Your task to perform on an android device: Clear the cart on amazon. Search for usb-b on amazon, select the first entry, and add it to the cart. Image 0: 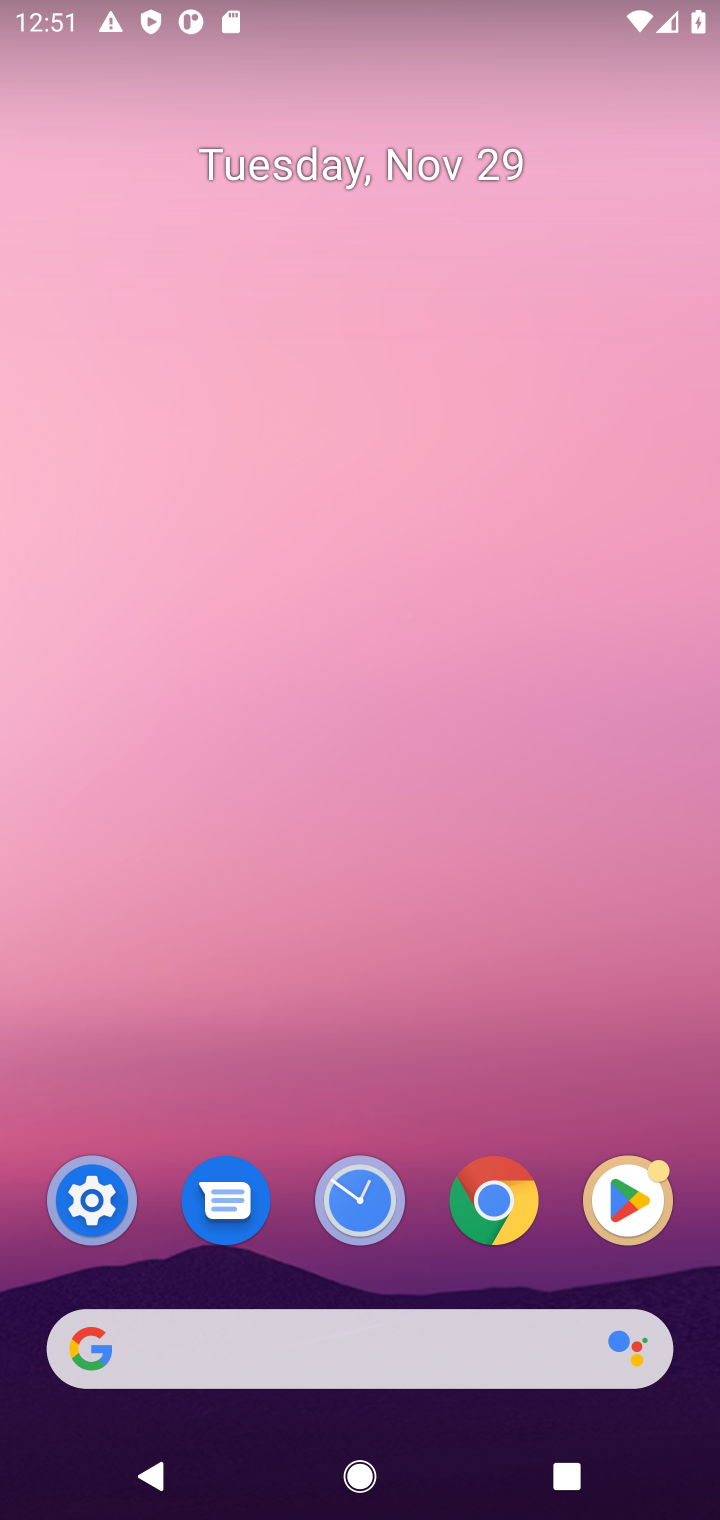
Step 0: press home button
Your task to perform on an android device: Clear the cart on amazon. Search for usb-b on amazon, select the first entry, and add it to the cart. Image 1: 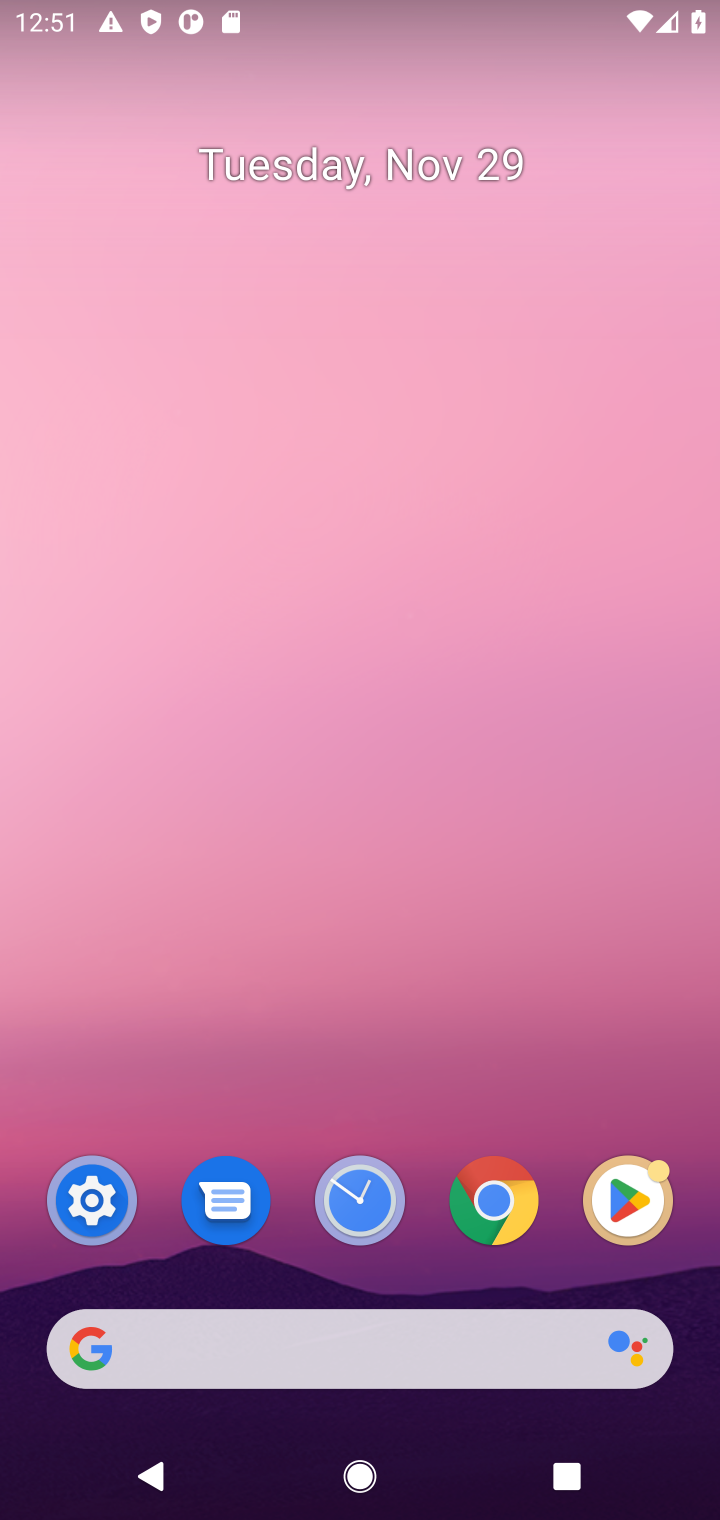
Step 1: click (270, 1349)
Your task to perform on an android device: Clear the cart on amazon. Search for usb-b on amazon, select the first entry, and add it to the cart. Image 2: 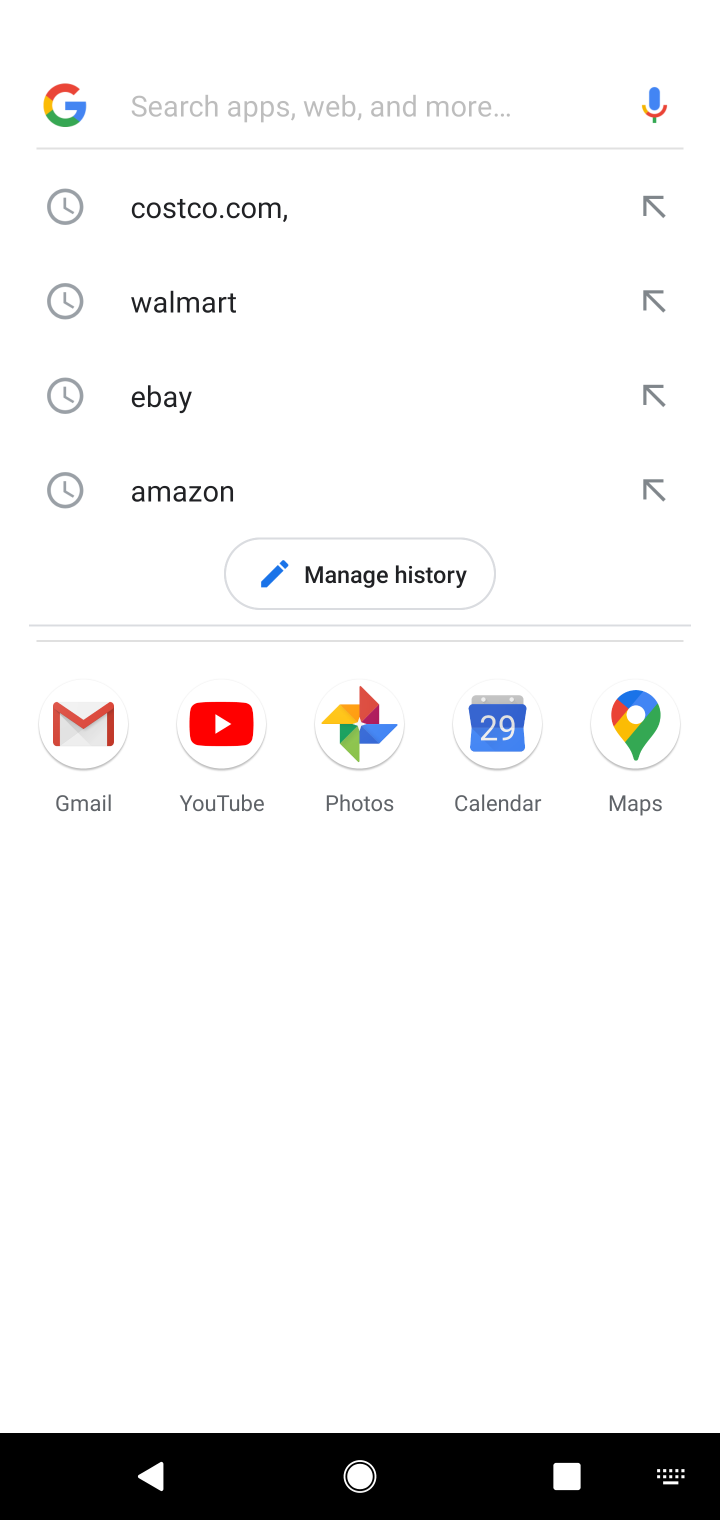
Step 2: type "amazon"
Your task to perform on an android device: Clear the cart on amazon. Search for usb-b on amazon, select the first entry, and add it to the cart. Image 3: 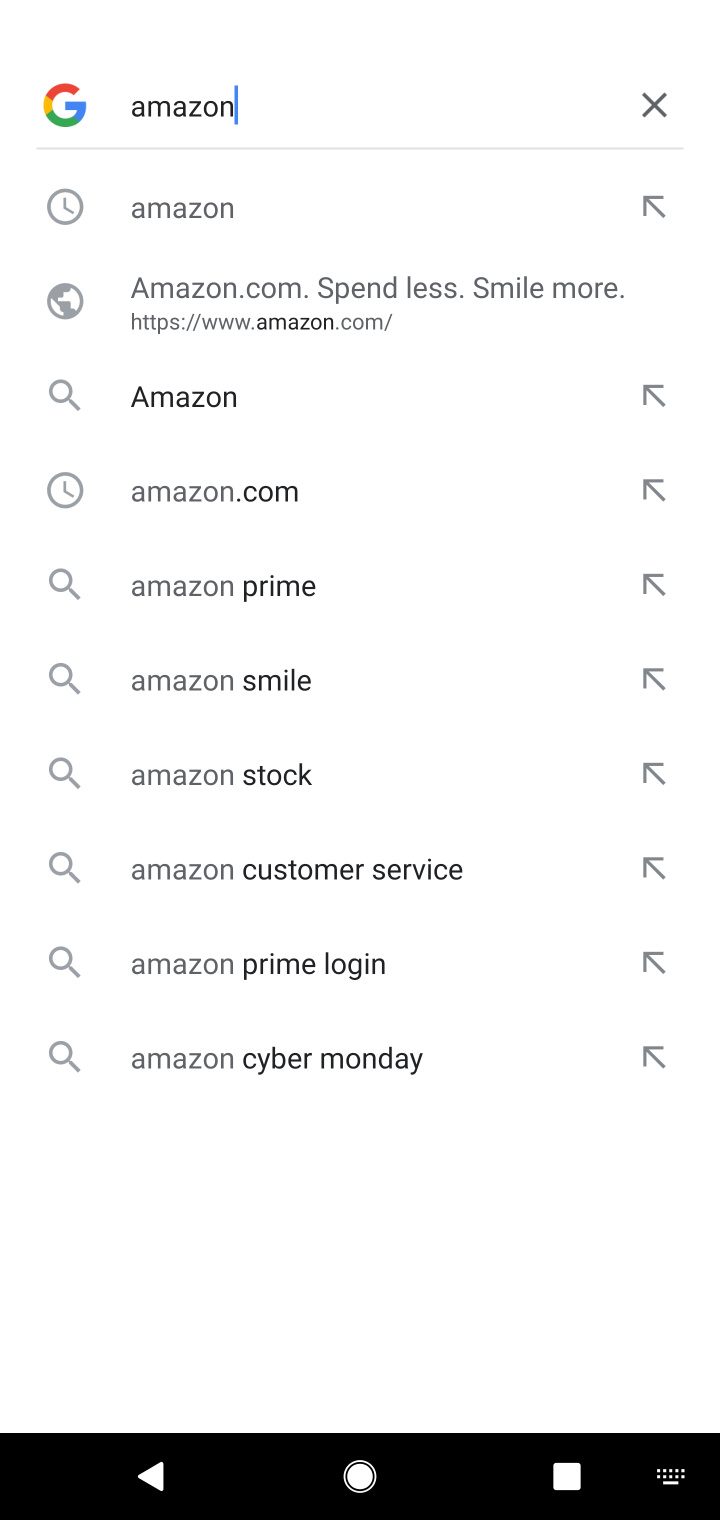
Step 3: click (274, 214)
Your task to perform on an android device: Clear the cart on amazon. Search for usb-b on amazon, select the first entry, and add it to the cart. Image 4: 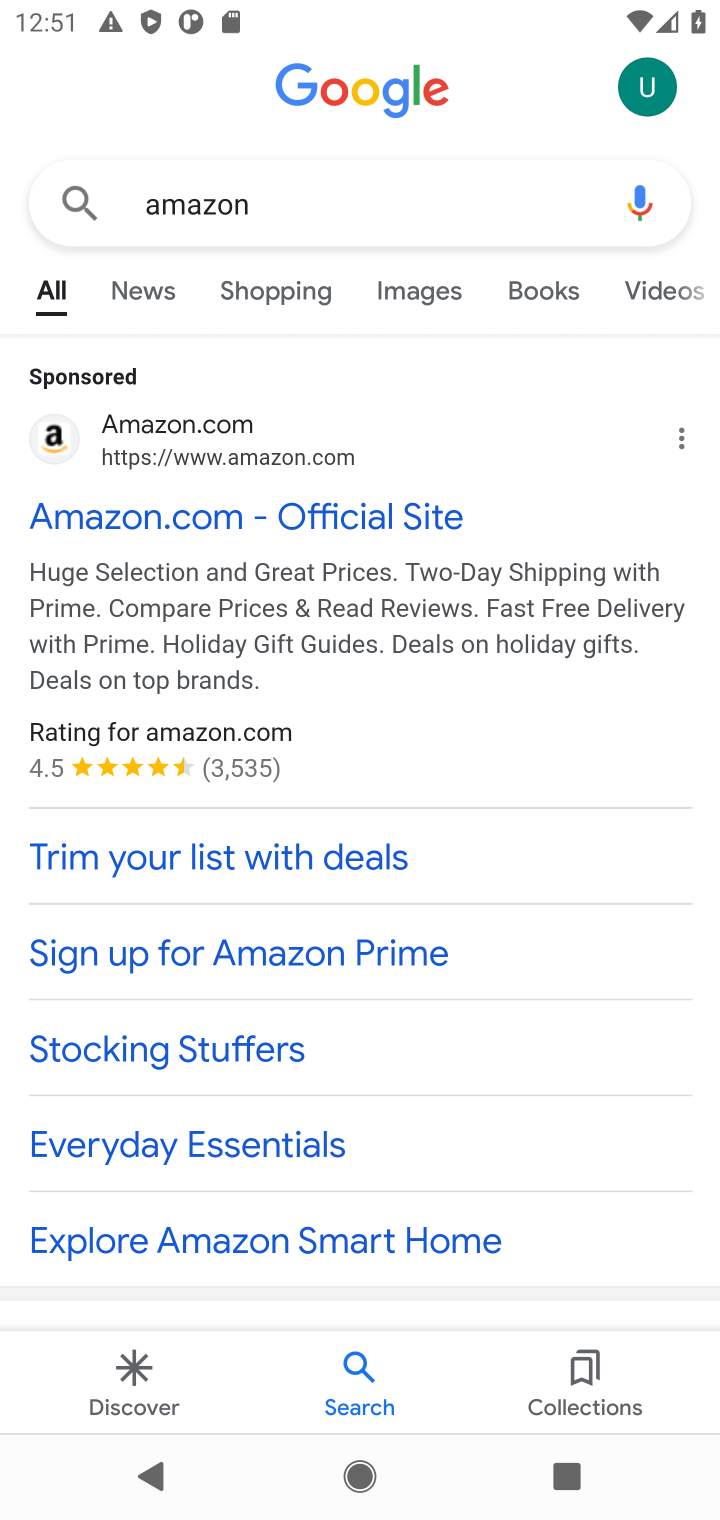
Step 4: click (378, 527)
Your task to perform on an android device: Clear the cart on amazon. Search for usb-b on amazon, select the first entry, and add it to the cart. Image 5: 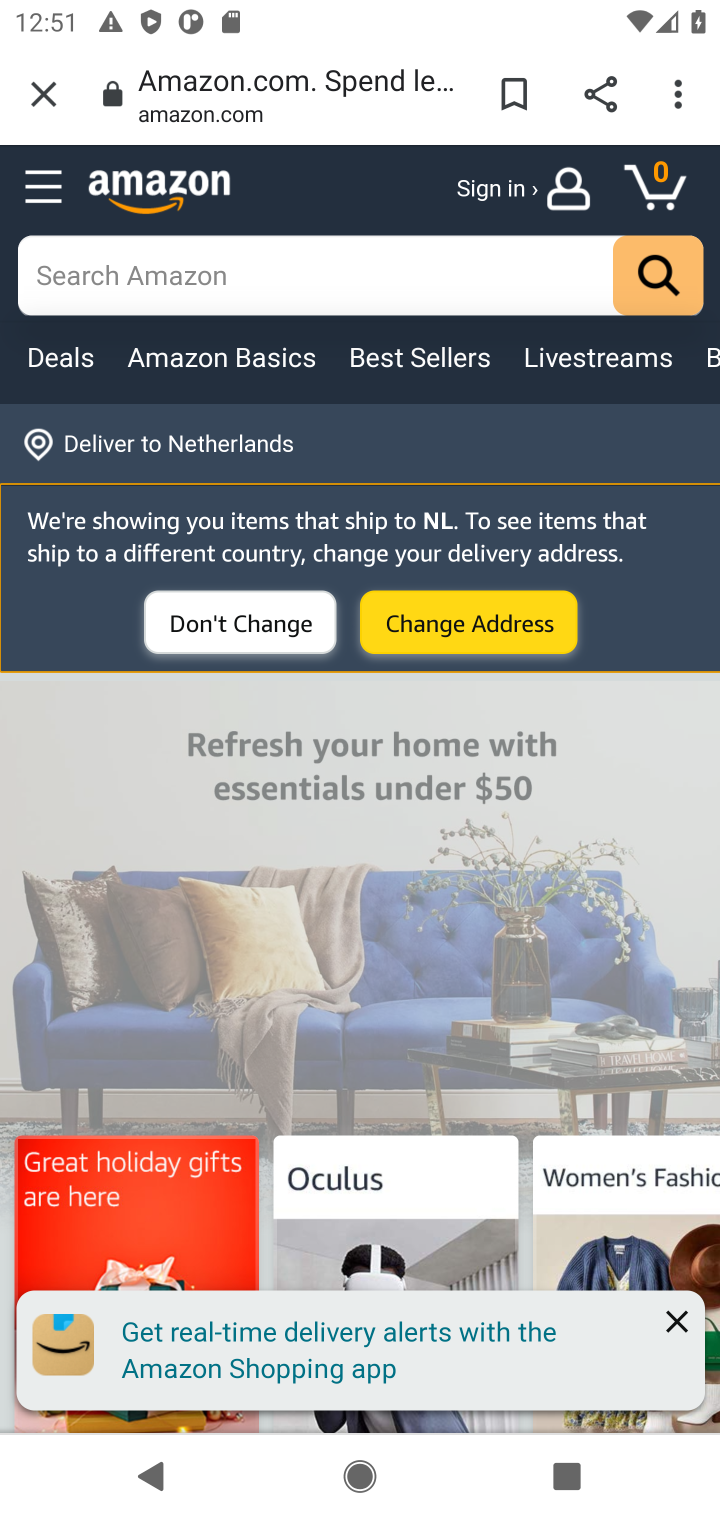
Step 5: click (441, 273)
Your task to perform on an android device: Clear the cart on amazon. Search for usb-b on amazon, select the first entry, and add it to the cart. Image 6: 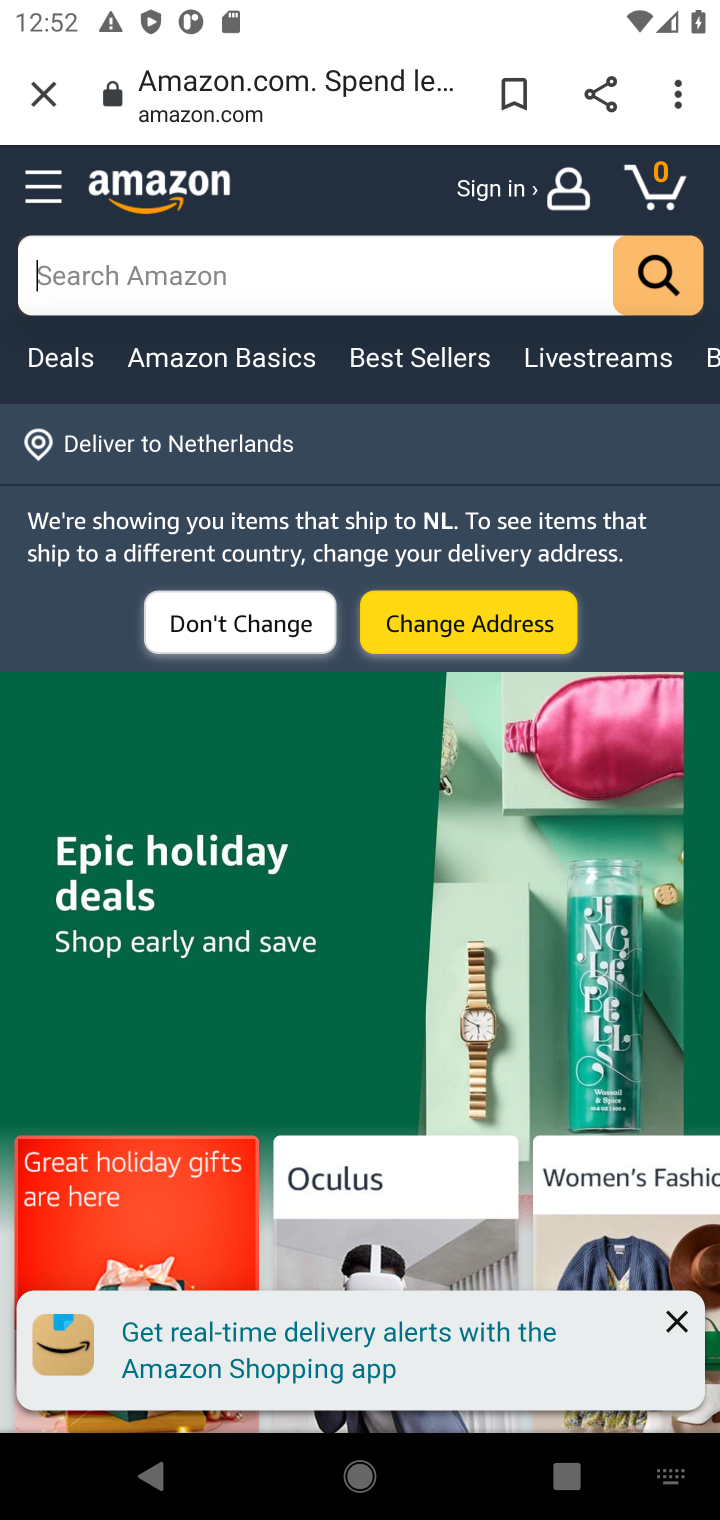
Step 6: click (387, 271)
Your task to perform on an android device: Clear the cart on amazon. Search for usb-b on amazon, select the first entry, and add it to the cart. Image 7: 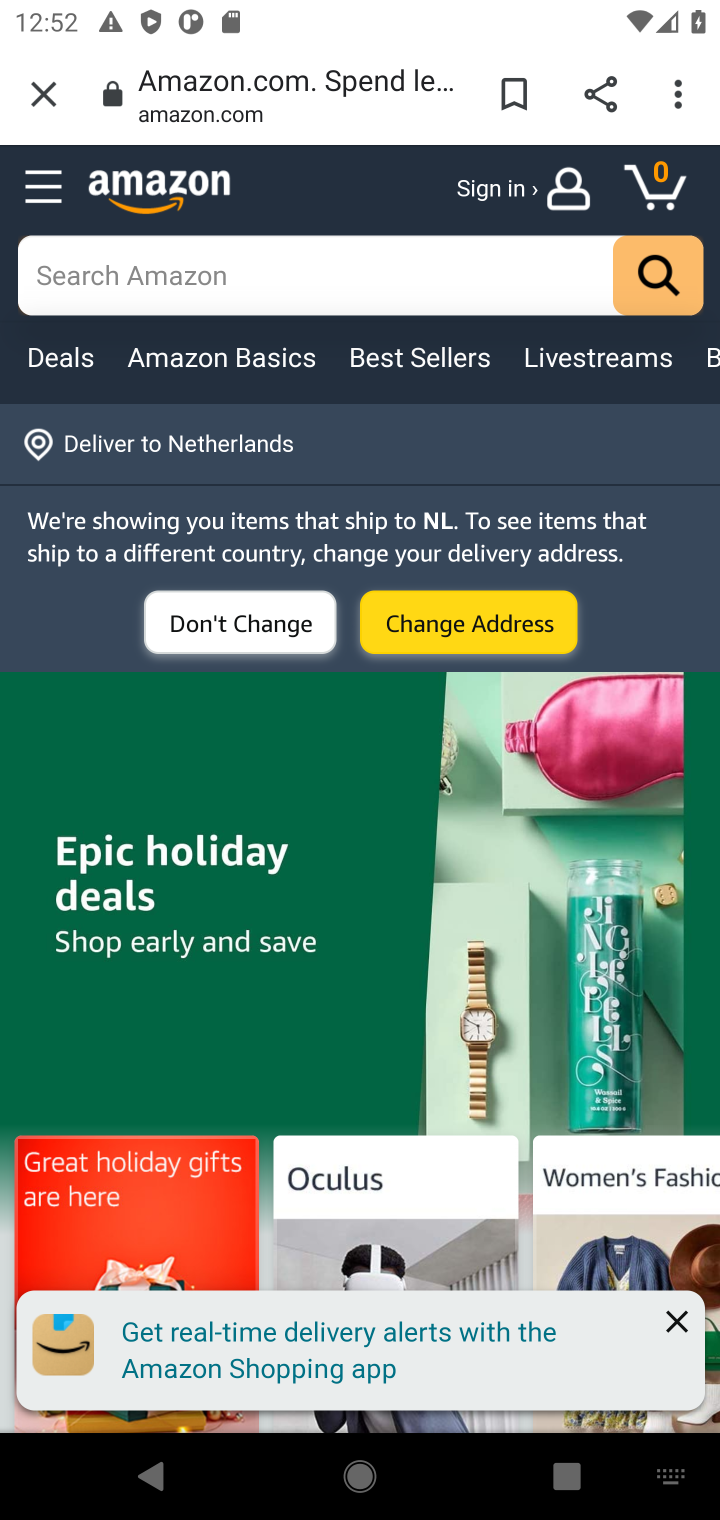
Step 7: type "amazon"
Your task to perform on an android device: Clear the cart on amazon. Search for usb-b on amazon, select the first entry, and add it to the cart. Image 8: 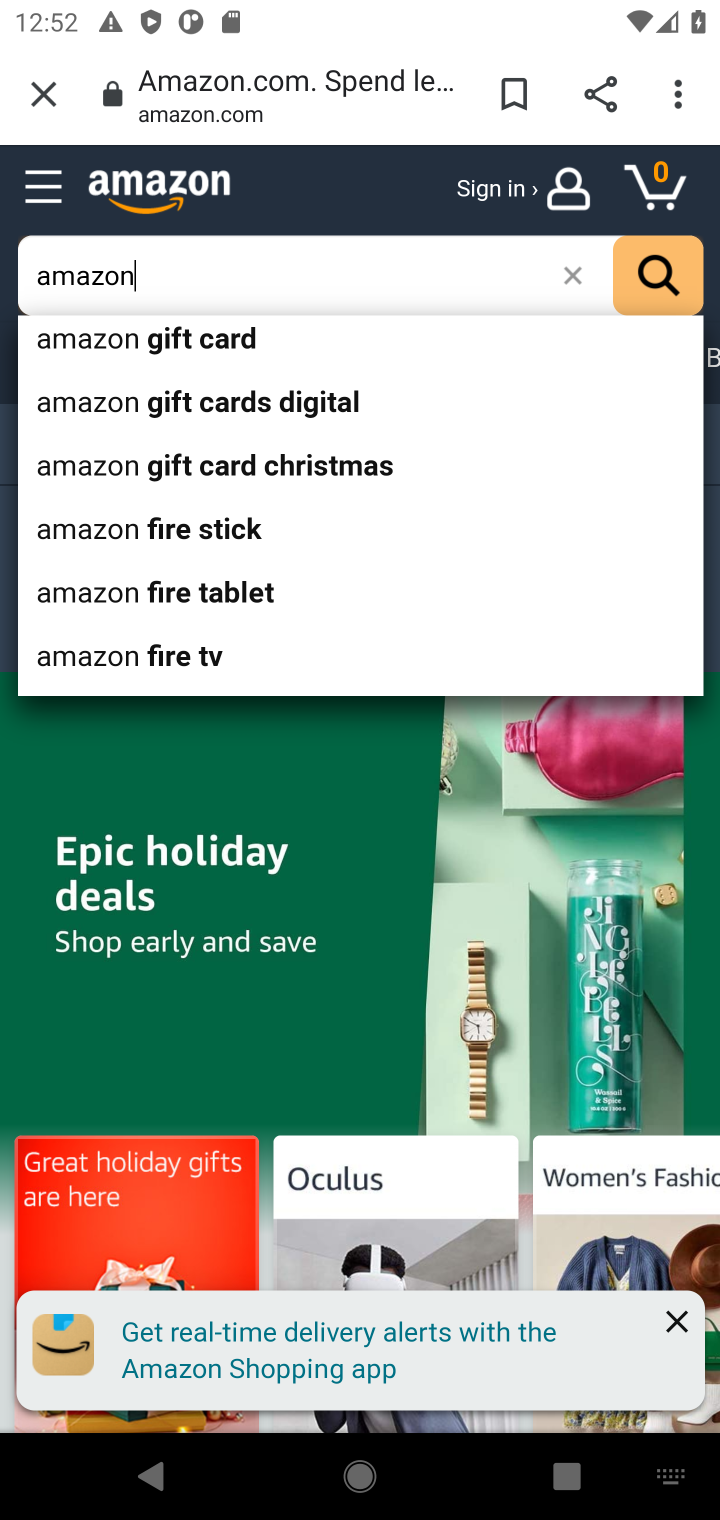
Step 8: task complete